Your task to perform on an android device: open a new tab in the chrome app Image 0: 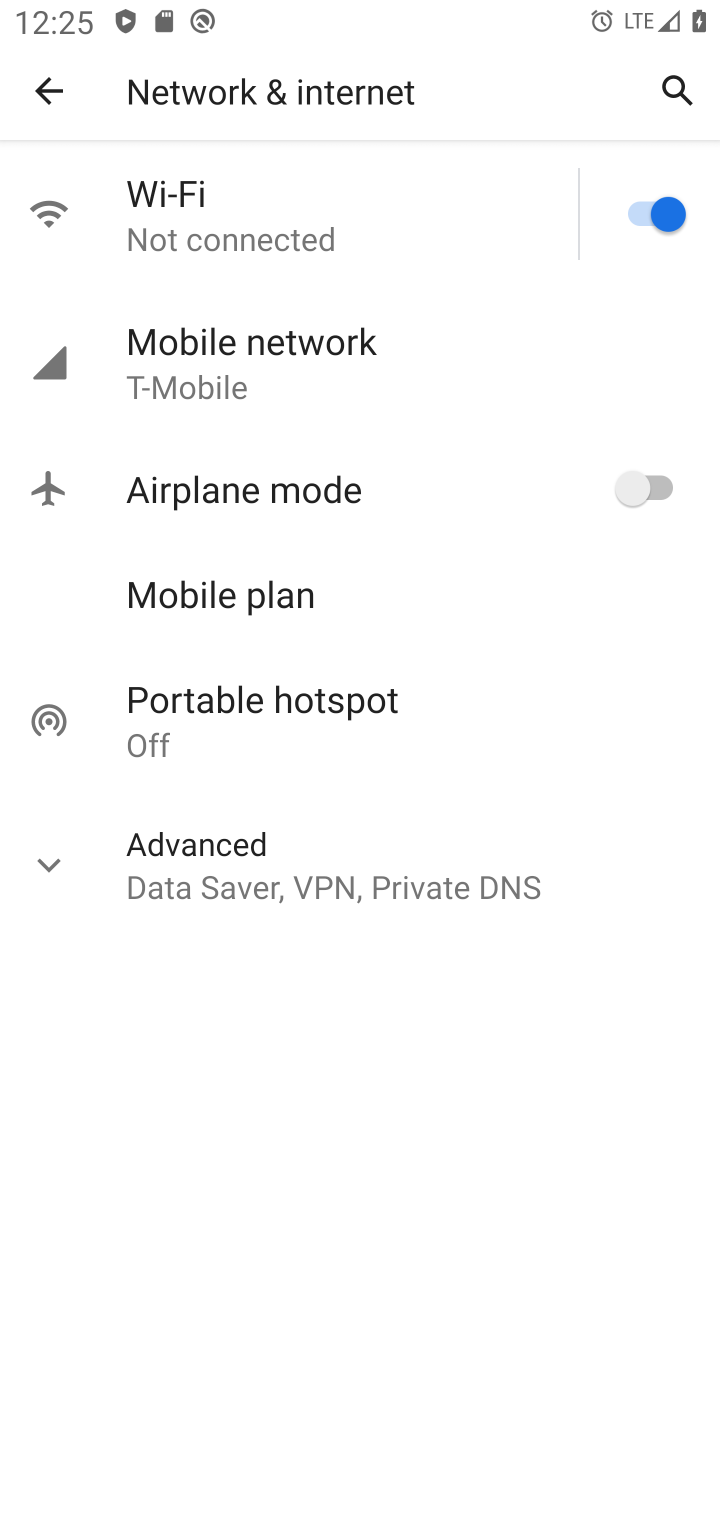
Step 0: press home button
Your task to perform on an android device: open a new tab in the chrome app Image 1: 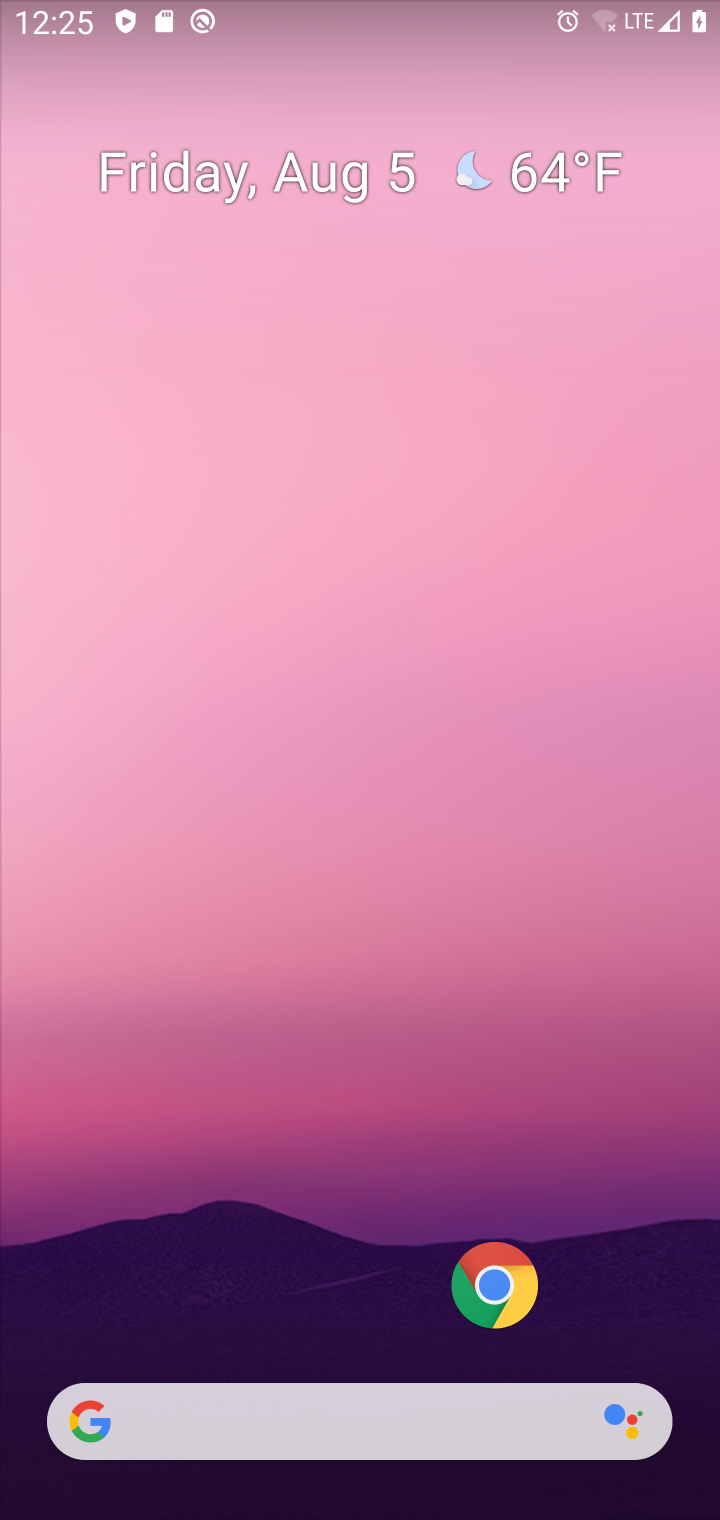
Step 1: drag from (267, 1242) to (197, 148)
Your task to perform on an android device: open a new tab in the chrome app Image 2: 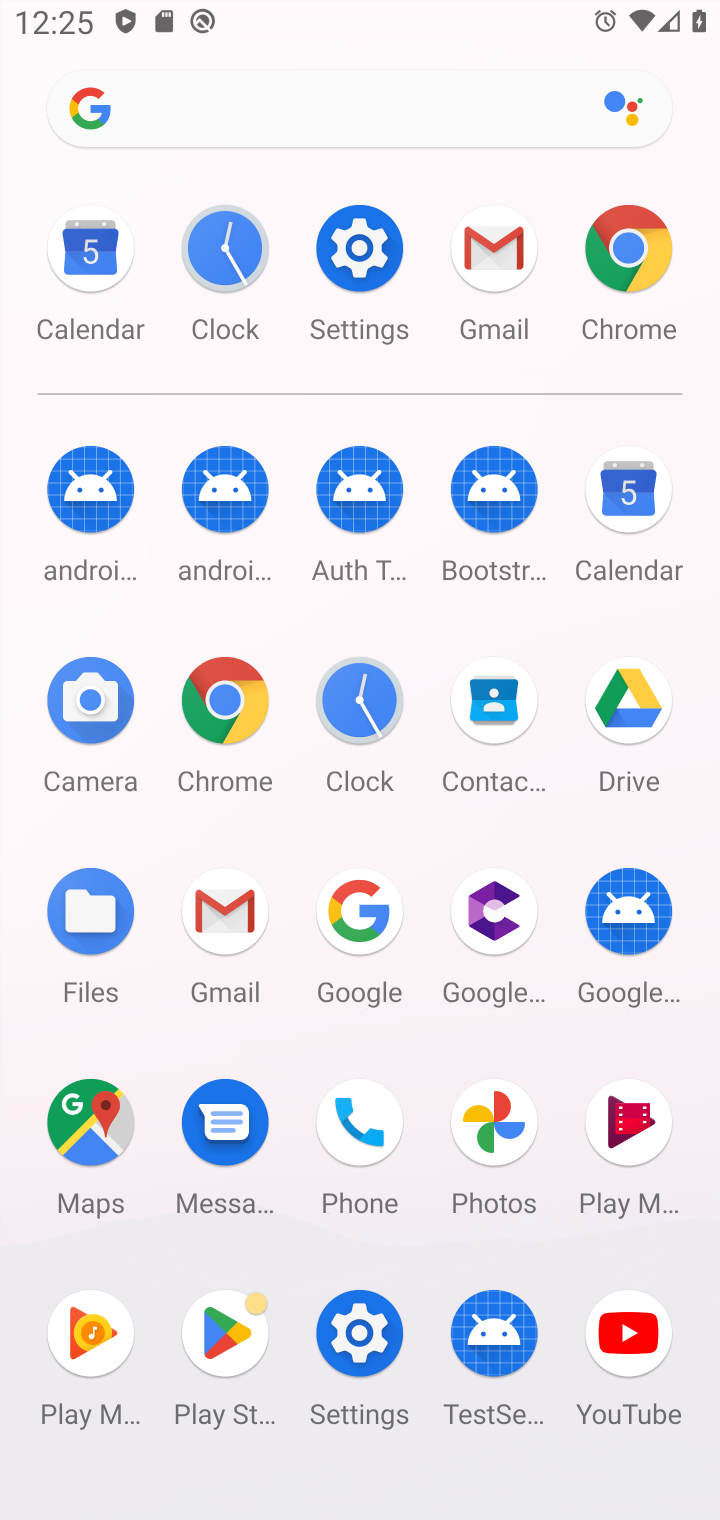
Step 2: click (627, 328)
Your task to perform on an android device: open a new tab in the chrome app Image 3: 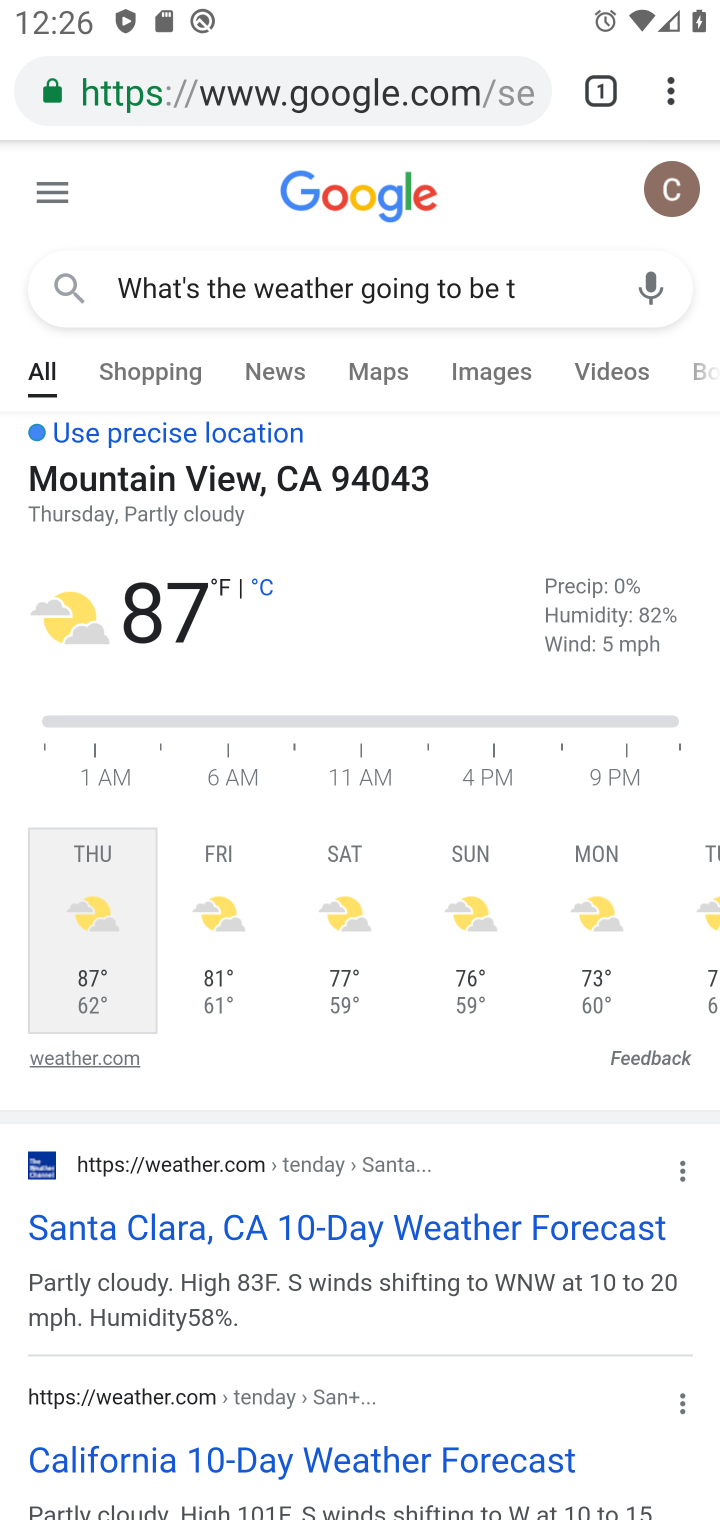
Step 3: task complete